Your task to perform on an android device: toggle wifi Image 0: 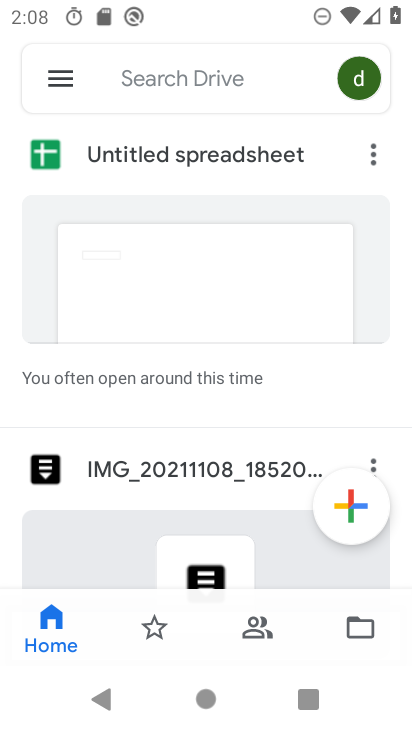
Step 0: press home button
Your task to perform on an android device: toggle wifi Image 1: 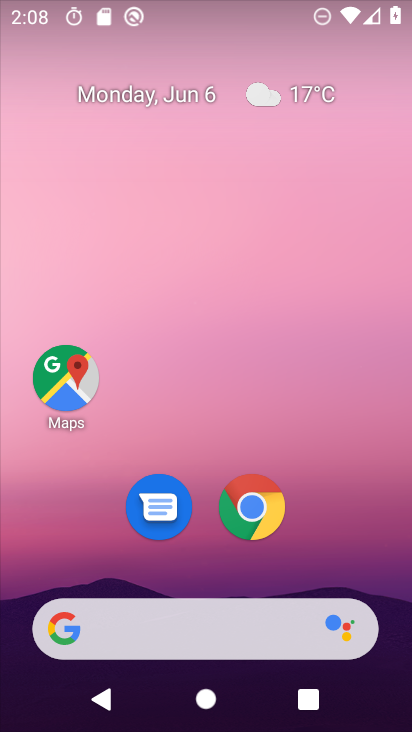
Step 1: drag from (243, 691) to (130, 215)
Your task to perform on an android device: toggle wifi Image 2: 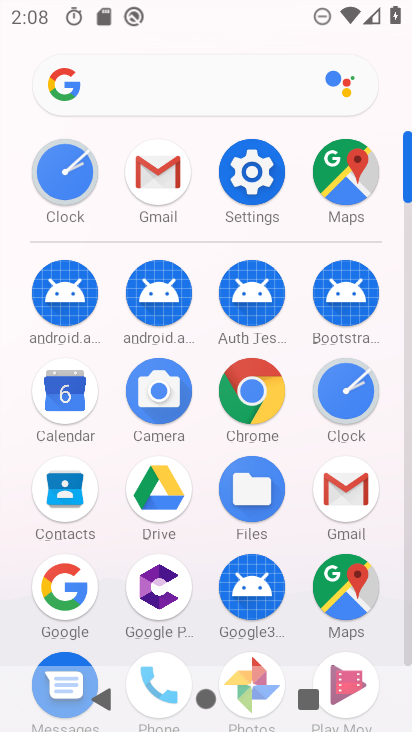
Step 2: click (235, 181)
Your task to perform on an android device: toggle wifi Image 3: 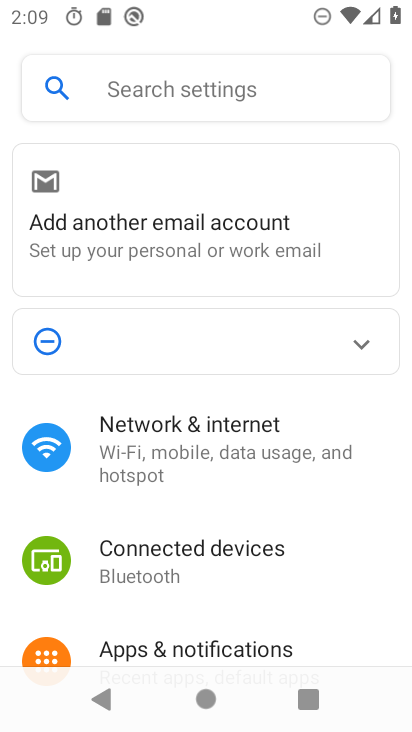
Step 3: click (213, 437)
Your task to perform on an android device: toggle wifi Image 4: 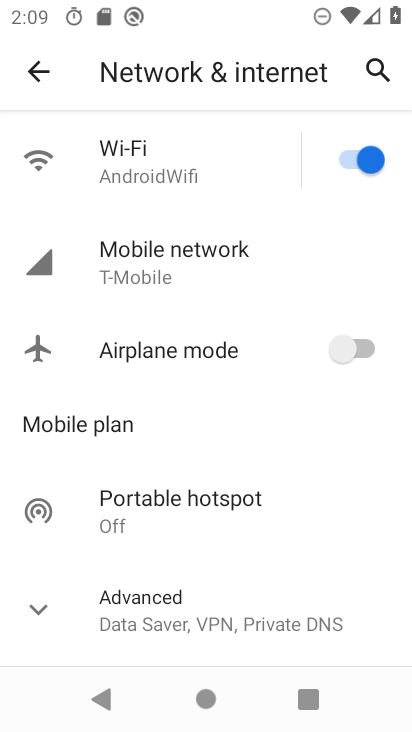
Step 4: click (123, 141)
Your task to perform on an android device: toggle wifi Image 5: 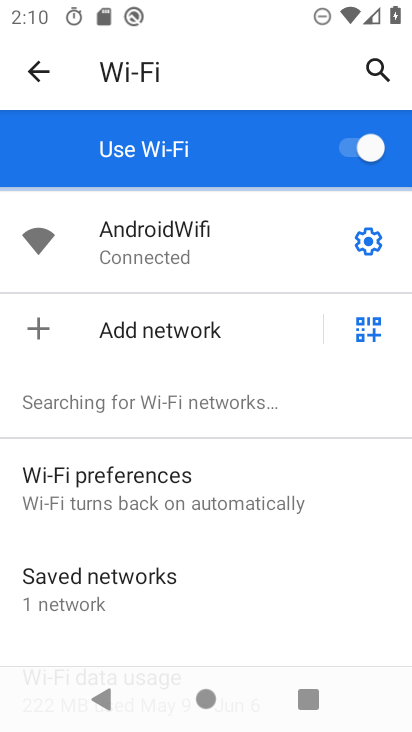
Step 5: task complete